Your task to perform on an android device: Check the news Image 0: 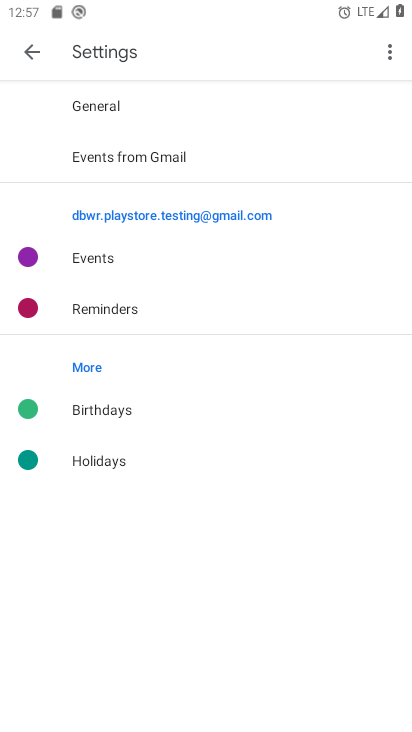
Step 0: press home button
Your task to perform on an android device: Check the news Image 1: 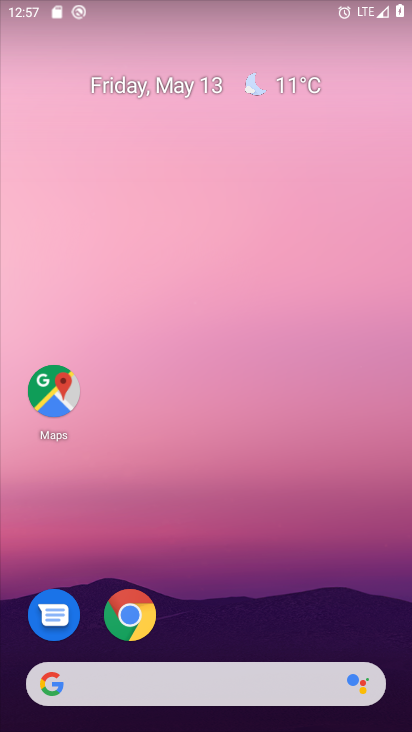
Step 1: click (277, 690)
Your task to perform on an android device: Check the news Image 2: 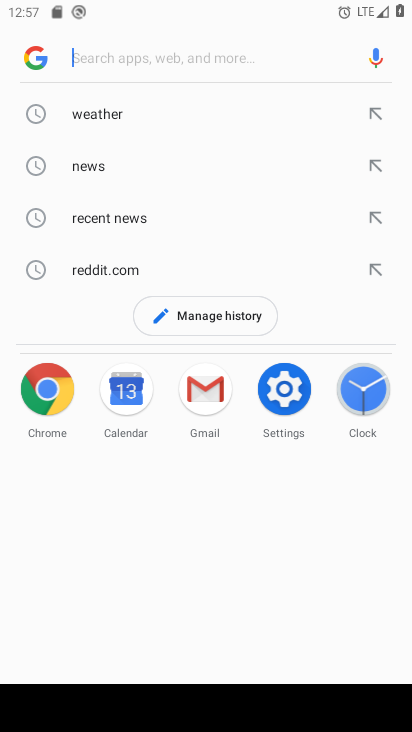
Step 2: click (97, 166)
Your task to perform on an android device: Check the news Image 3: 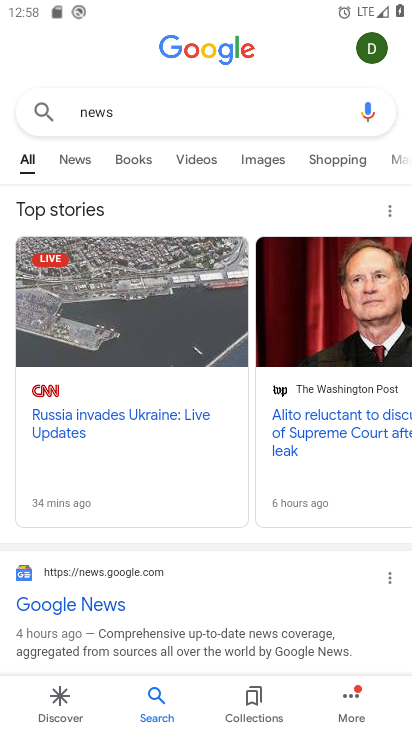
Step 3: task complete